Your task to perform on an android device: check battery use Image 0: 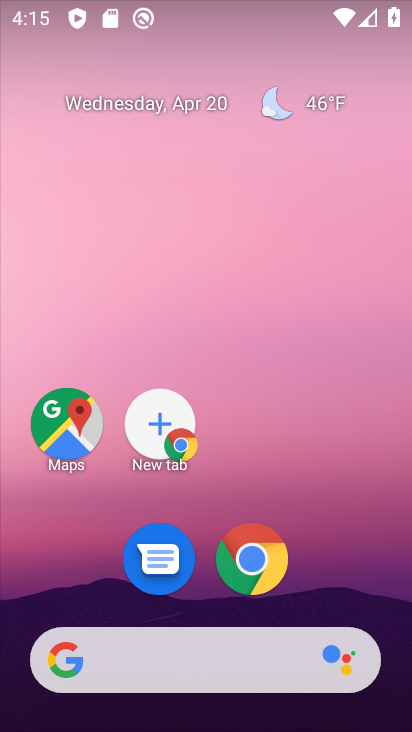
Step 0: drag from (331, 572) to (214, 13)
Your task to perform on an android device: check battery use Image 1: 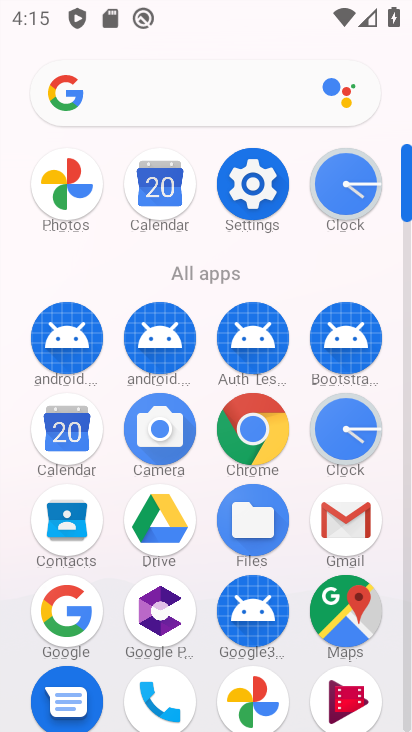
Step 1: click (259, 193)
Your task to perform on an android device: check battery use Image 2: 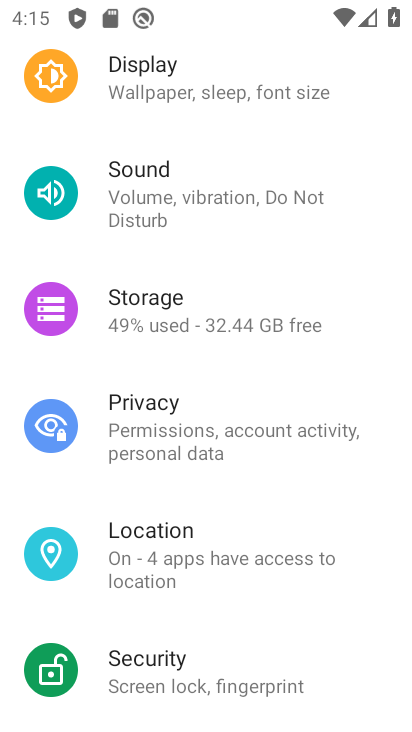
Step 2: drag from (274, 501) to (300, 238)
Your task to perform on an android device: check battery use Image 3: 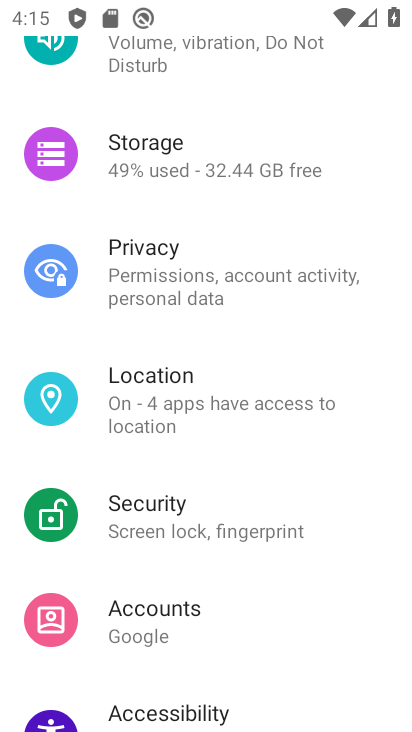
Step 3: drag from (193, 665) to (279, 314)
Your task to perform on an android device: check battery use Image 4: 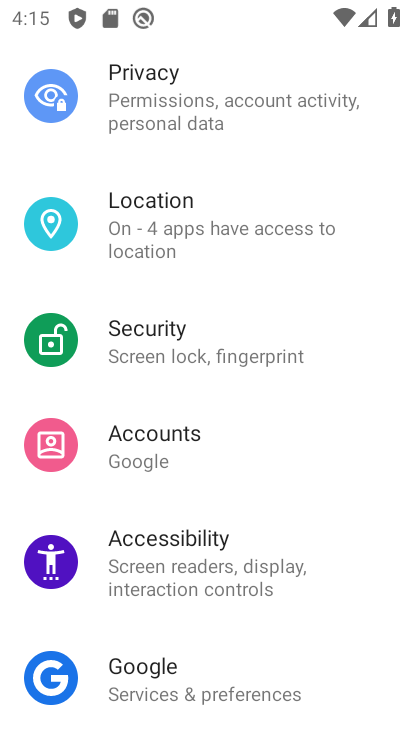
Step 4: drag from (251, 199) to (252, 715)
Your task to perform on an android device: check battery use Image 5: 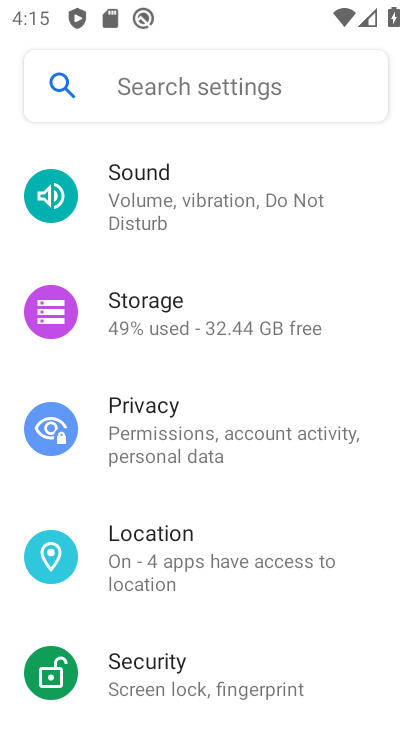
Step 5: drag from (241, 263) to (199, 696)
Your task to perform on an android device: check battery use Image 6: 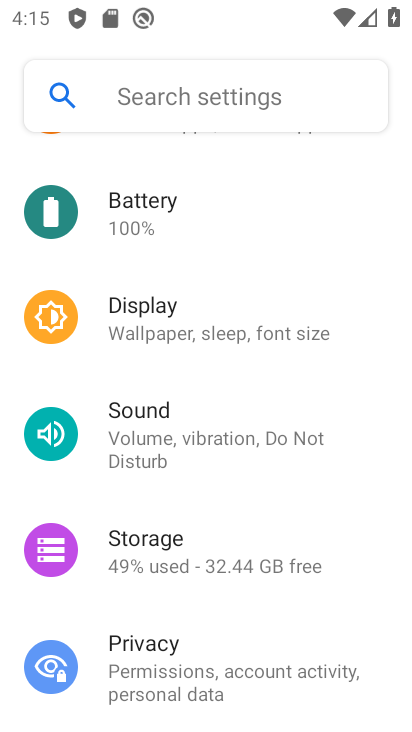
Step 6: click (120, 209)
Your task to perform on an android device: check battery use Image 7: 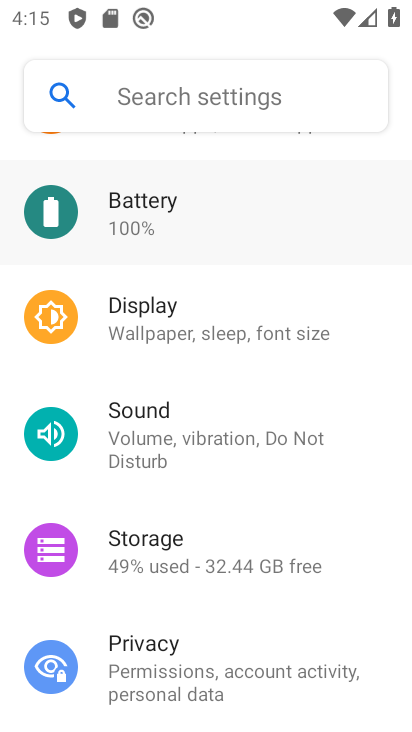
Step 7: task complete